Your task to perform on an android device: What is the recent news? Image 0: 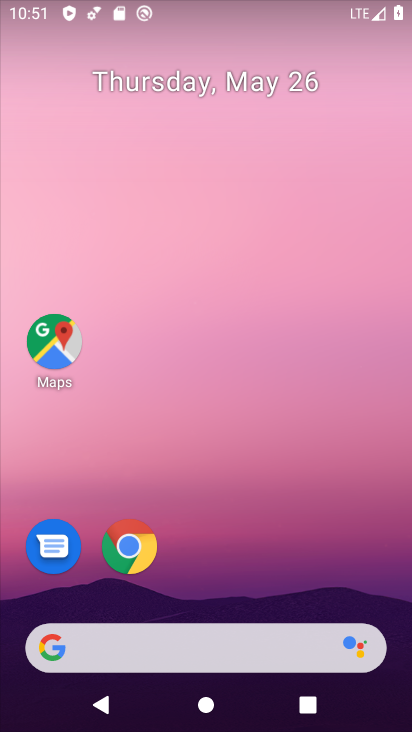
Step 0: drag from (254, 420) to (263, 67)
Your task to perform on an android device: What is the recent news? Image 1: 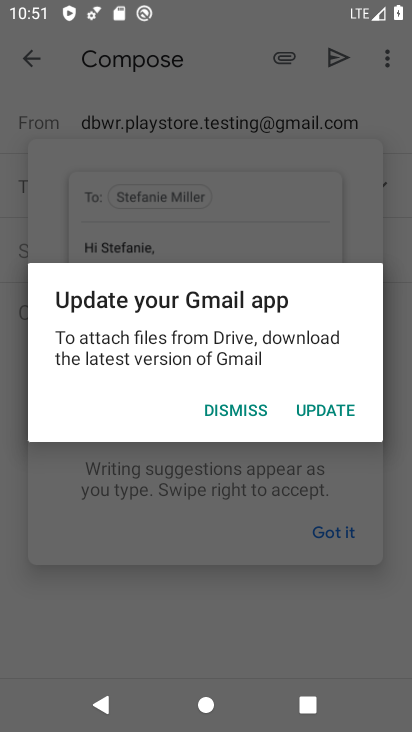
Step 1: press home button
Your task to perform on an android device: What is the recent news? Image 2: 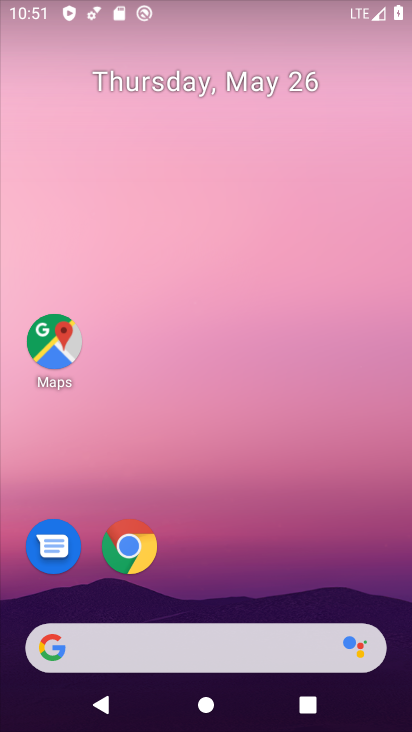
Step 2: drag from (235, 552) to (299, 39)
Your task to perform on an android device: What is the recent news? Image 3: 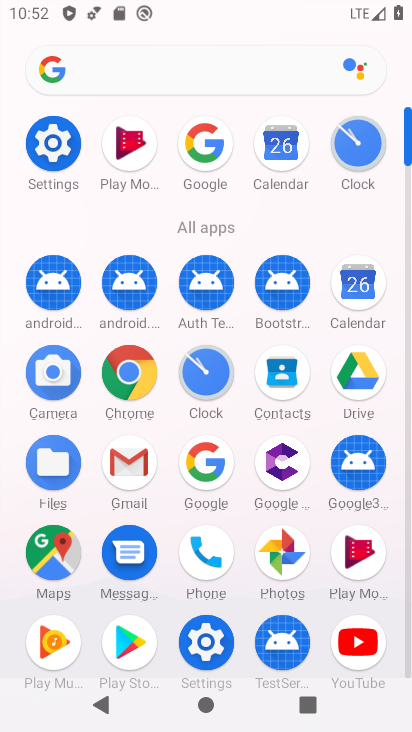
Step 3: click (208, 137)
Your task to perform on an android device: What is the recent news? Image 4: 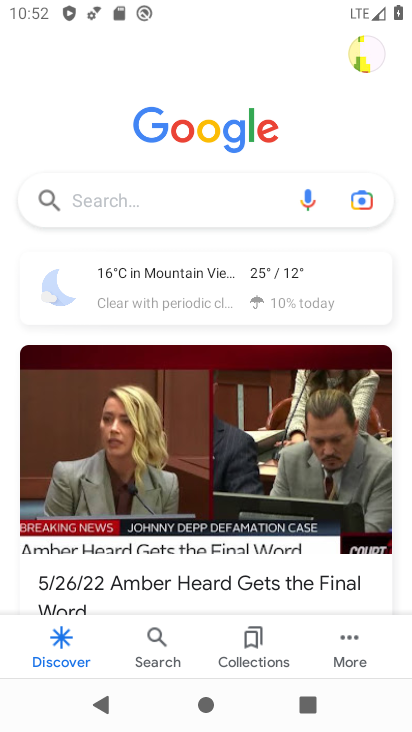
Step 4: click (161, 194)
Your task to perform on an android device: What is the recent news? Image 5: 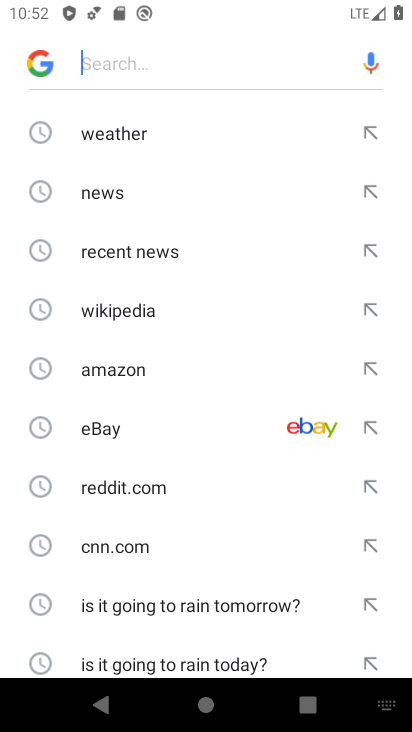
Step 5: click (148, 245)
Your task to perform on an android device: What is the recent news? Image 6: 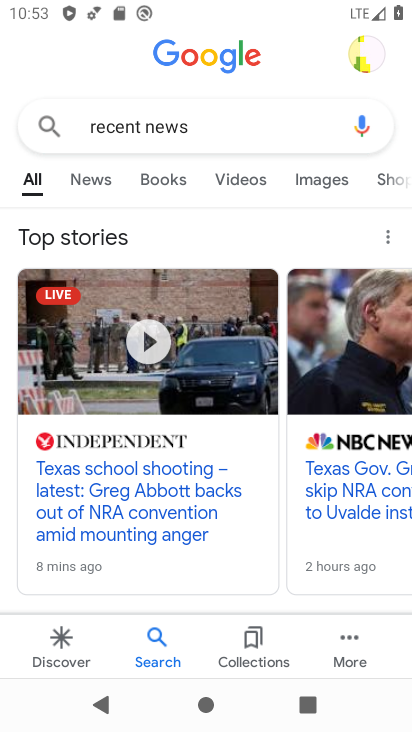
Step 6: task complete